Your task to perform on an android device: delete browsing data in the chrome app Image 0: 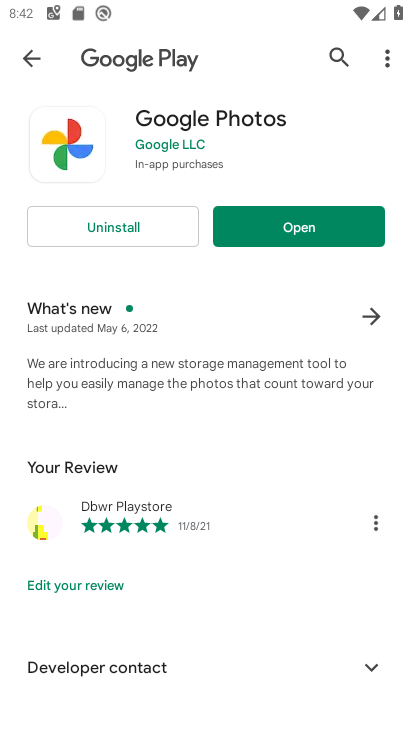
Step 0: press back button
Your task to perform on an android device: delete browsing data in the chrome app Image 1: 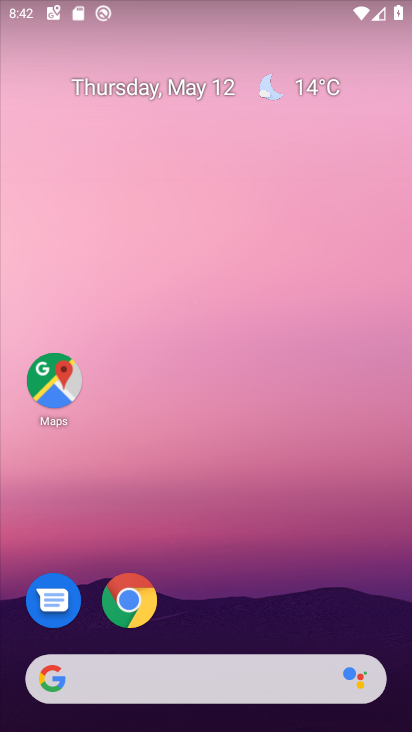
Step 1: drag from (318, 639) to (118, 14)
Your task to perform on an android device: delete browsing data in the chrome app Image 2: 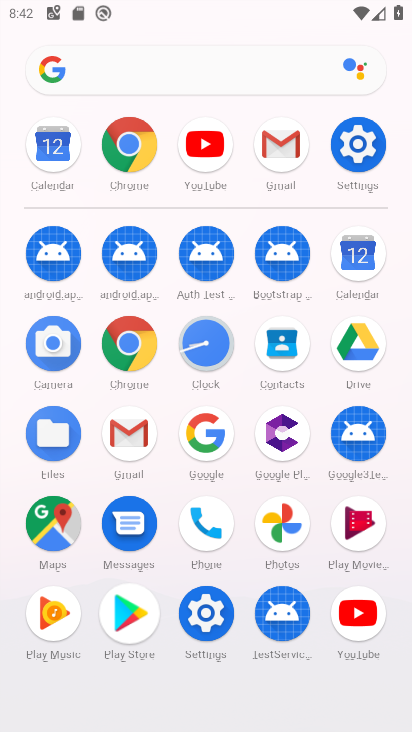
Step 2: click (131, 136)
Your task to perform on an android device: delete browsing data in the chrome app Image 3: 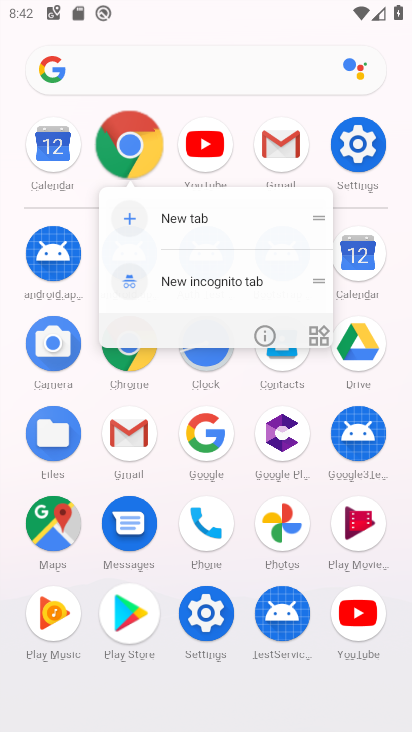
Step 3: click (130, 146)
Your task to perform on an android device: delete browsing data in the chrome app Image 4: 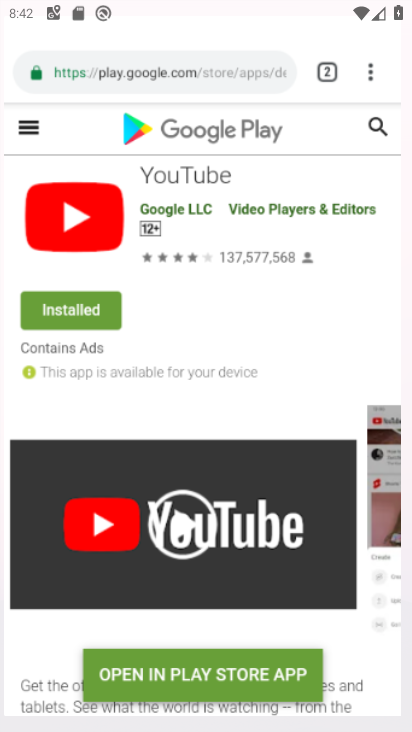
Step 4: click (130, 146)
Your task to perform on an android device: delete browsing data in the chrome app Image 5: 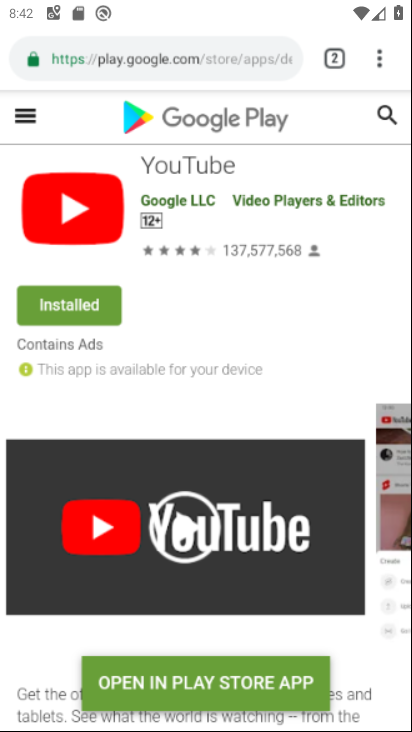
Step 5: click (130, 146)
Your task to perform on an android device: delete browsing data in the chrome app Image 6: 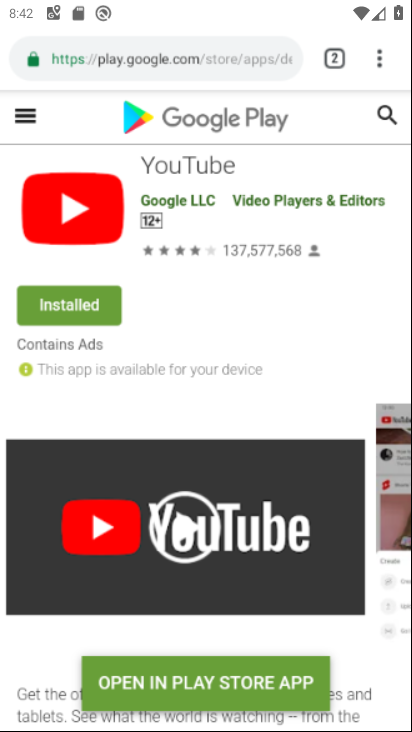
Step 6: click (130, 146)
Your task to perform on an android device: delete browsing data in the chrome app Image 7: 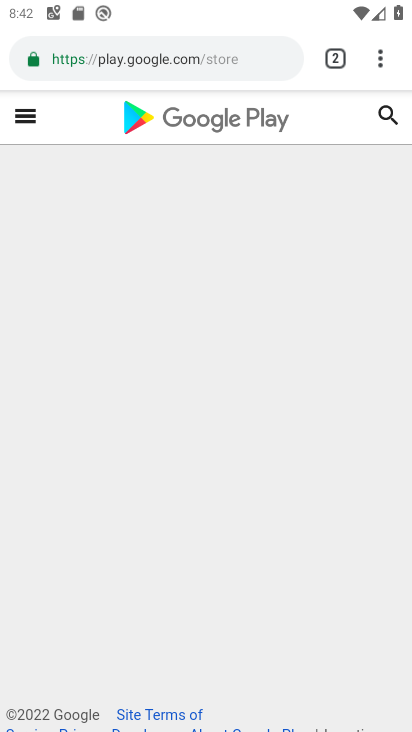
Step 7: drag from (377, 51) to (168, 302)
Your task to perform on an android device: delete browsing data in the chrome app Image 8: 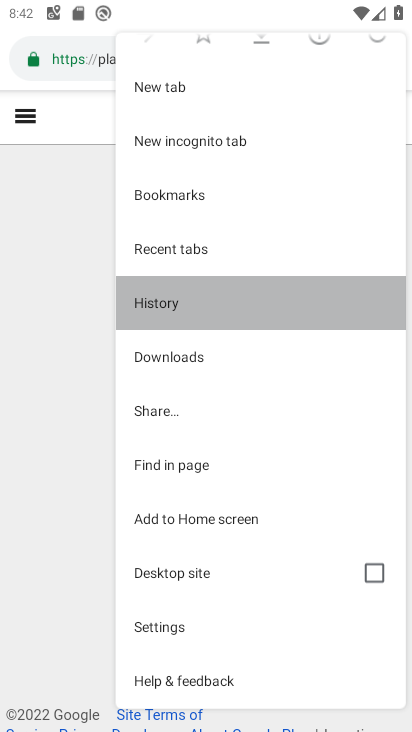
Step 8: click (168, 302)
Your task to perform on an android device: delete browsing data in the chrome app Image 9: 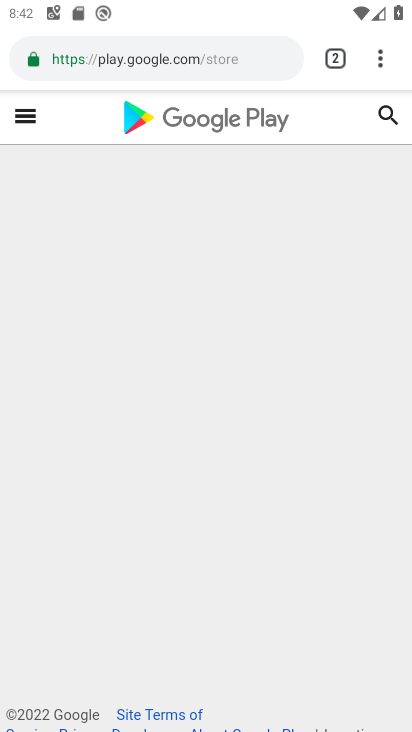
Step 9: click (168, 302)
Your task to perform on an android device: delete browsing data in the chrome app Image 10: 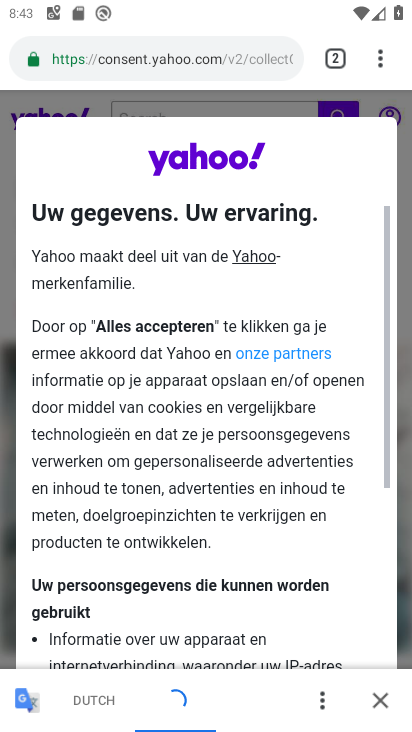
Step 10: drag from (380, 51) to (153, 327)
Your task to perform on an android device: delete browsing data in the chrome app Image 11: 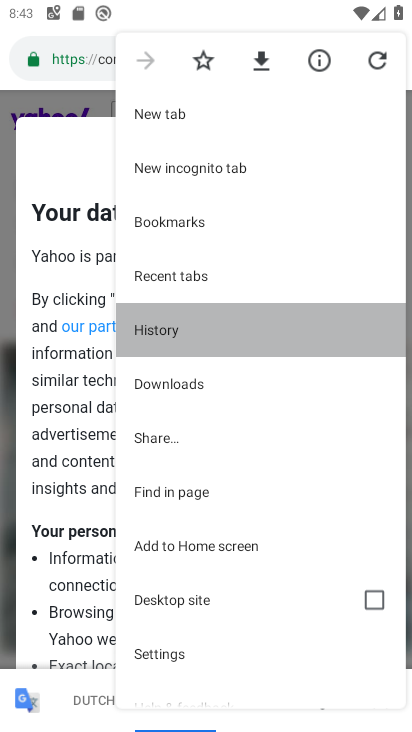
Step 11: click (153, 328)
Your task to perform on an android device: delete browsing data in the chrome app Image 12: 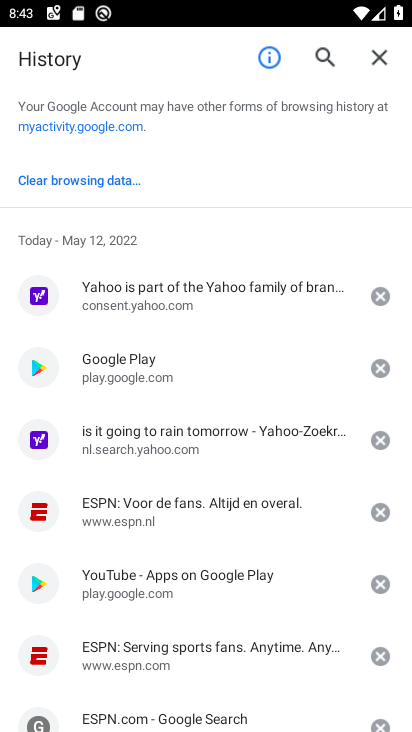
Step 12: click (381, 297)
Your task to perform on an android device: delete browsing data in the chrome app Image 13: 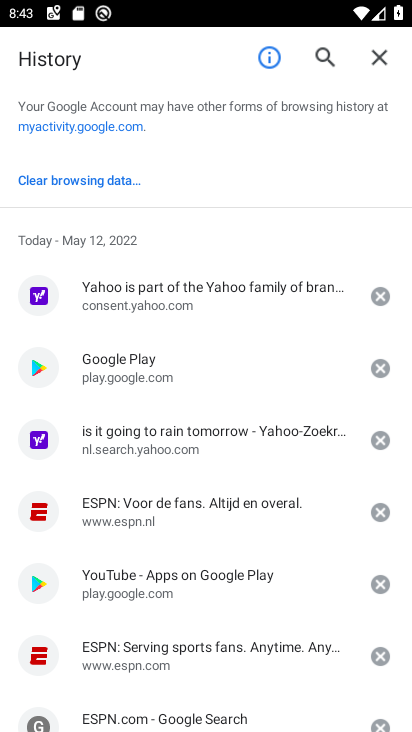
Step 13: click (381, 297)
Your task to perform on an android device: delete browsing data in the chrome app Image 14: 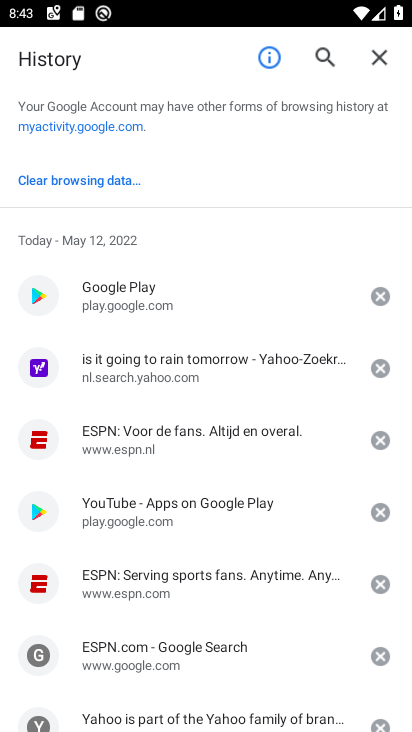
Step 14: task complete